Your task to perform on an android device: What's the weather going to be this weekend? Image 0: 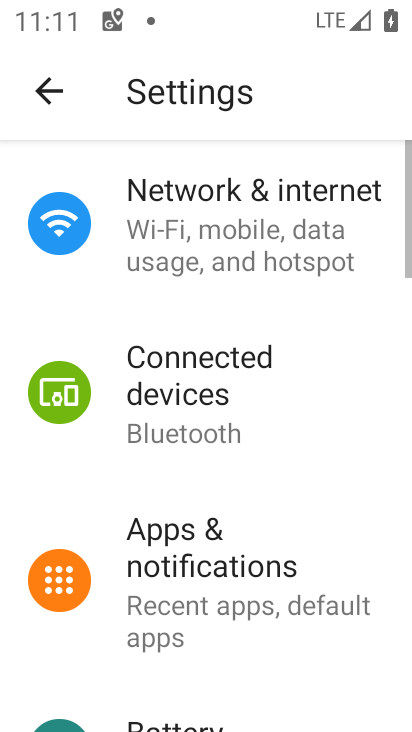
Step 0: press home button
Your task to perform on an android device: What's the weather going to be this weekend? Image 1: 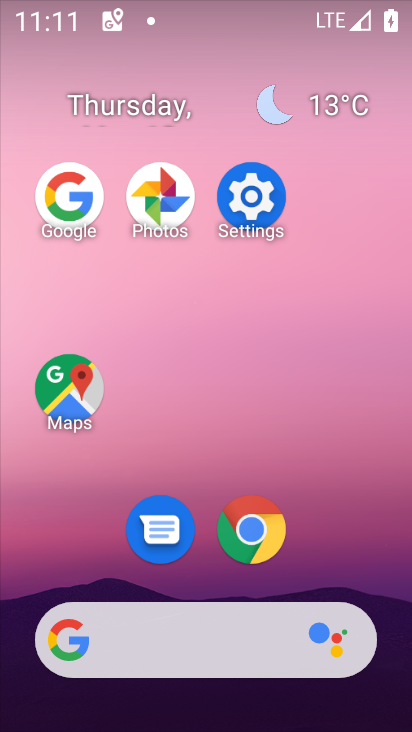
Step 1: click (68, 192)
Your task to perform on an android device: What's the weather going to be this weekend? Image 2: 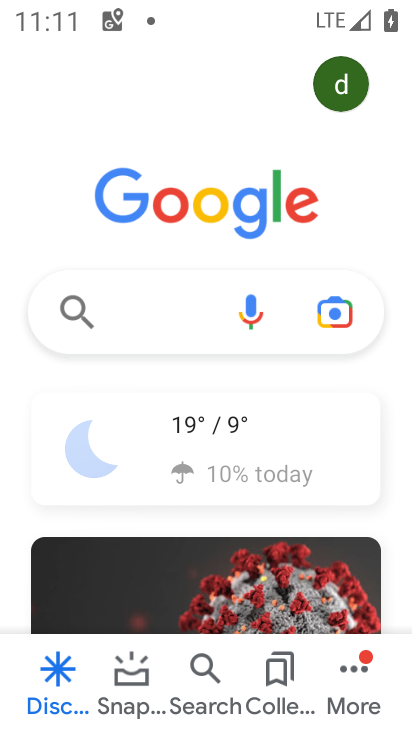
Step 2: click (184, 423)
Your task to perform on an android device: What's the weather going to be this weekend? Image 3: 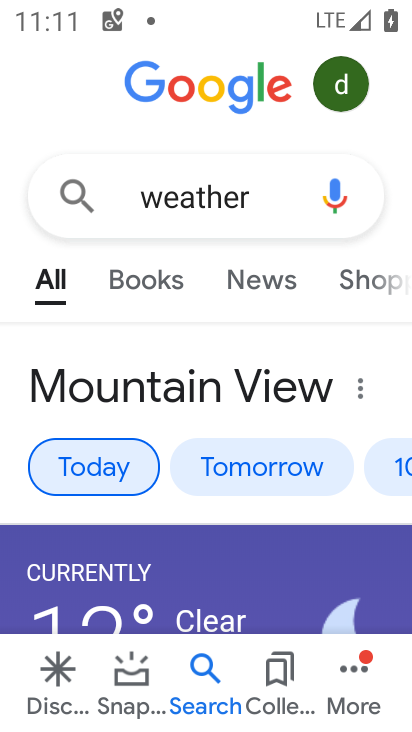
Step 3: click (387, 457)
Your task to perform on an android device: What's the weather going to be this weekend? Image 4: 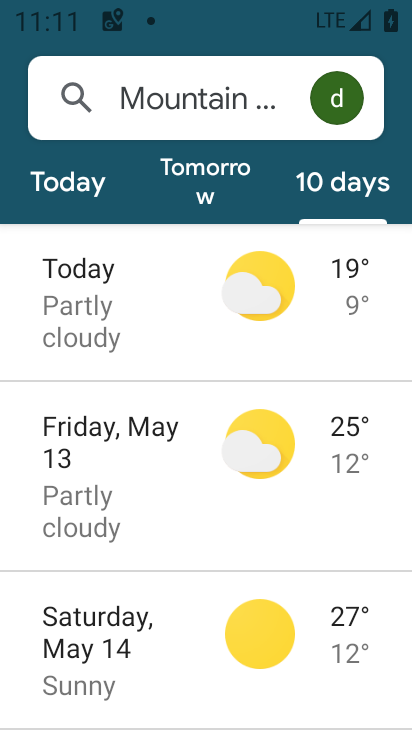
Step 4: click (63, 633)
Your task to perform on an android device: What's the weather going to be this weekend? Image 5: 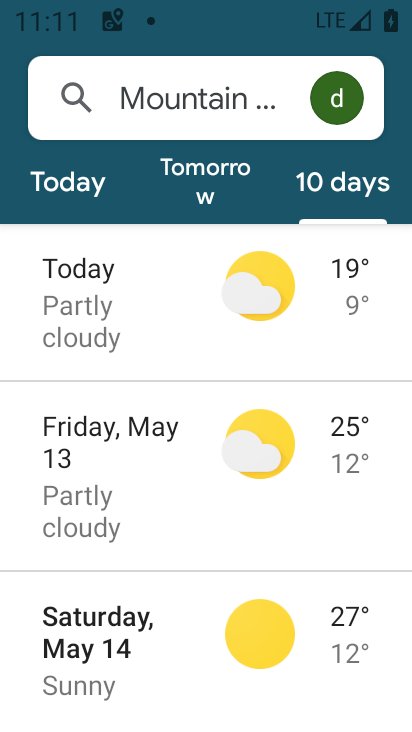
Step 5: click (153, 629)
Your task to perform on an android device: What's the weather going to be this weekend? Image 6: 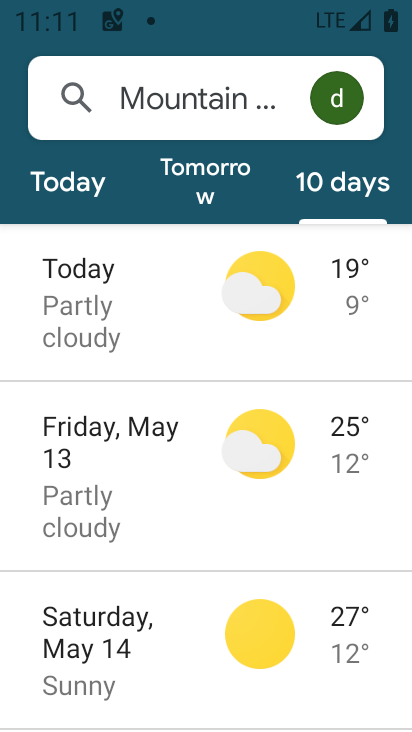
Step 6: task complete